Your task to perform on an android device: Google the capital of Mexico Image 0: 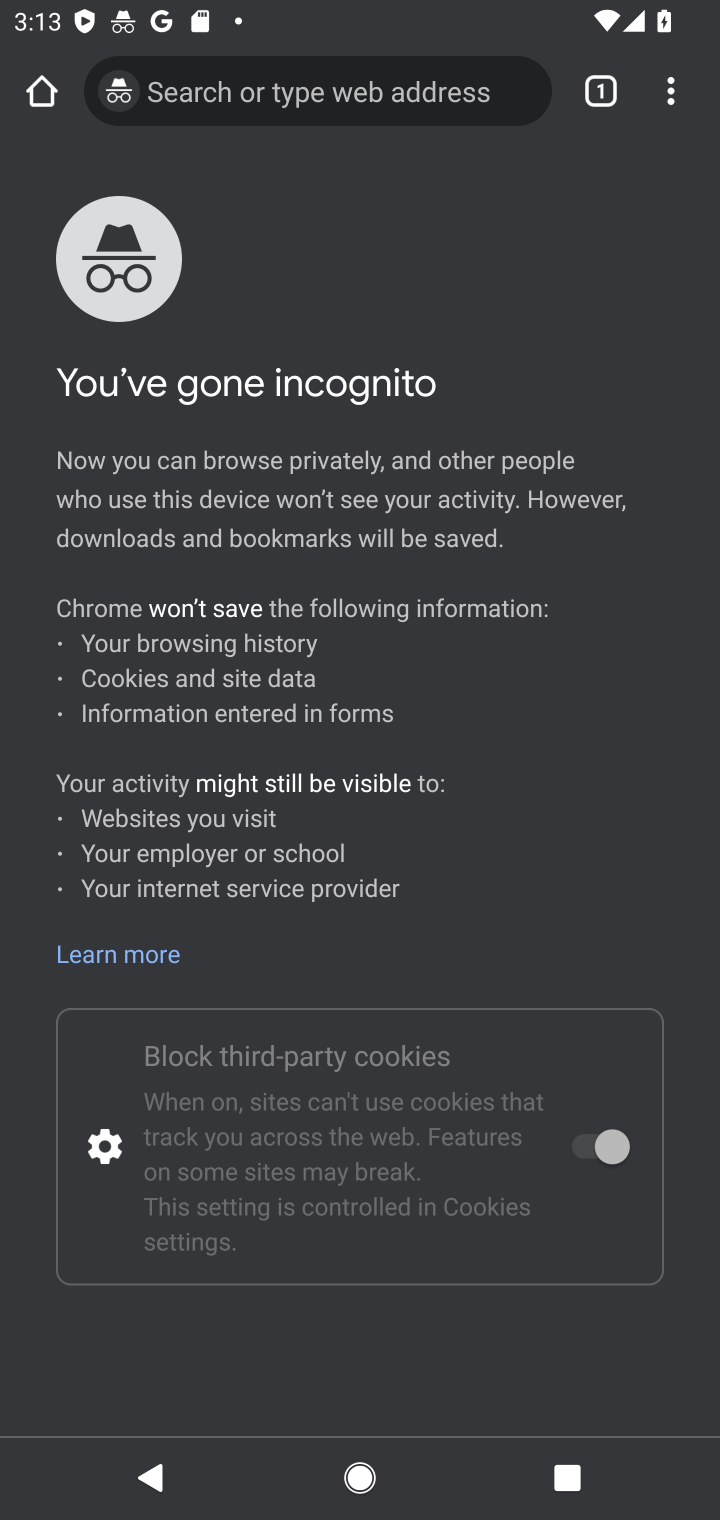
Step 0: press home button
Your task to perform on an android device: Google the capital of Mexico Image 1: 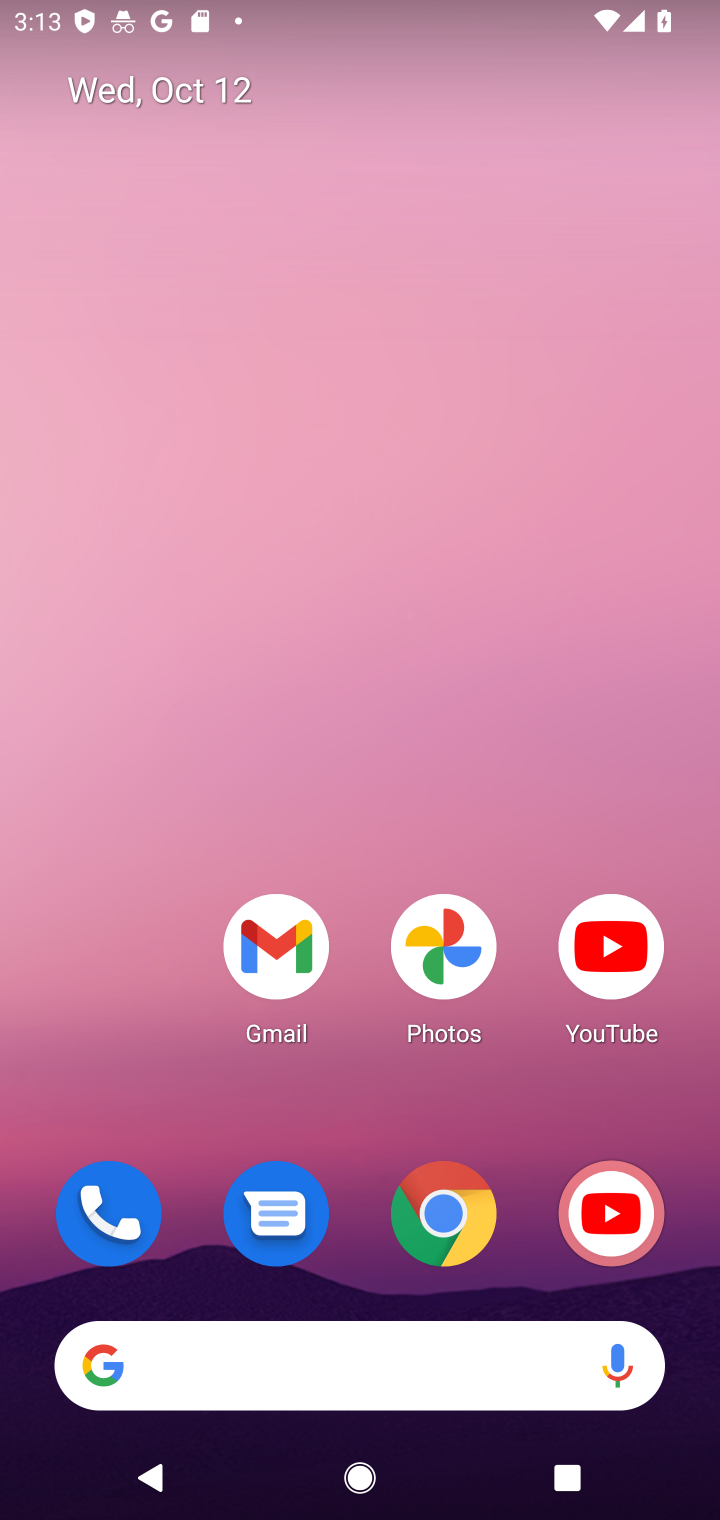
Step 1: click (378, 1360)
Your task to perform on an android device: Google the capital of Mexico Image 2: 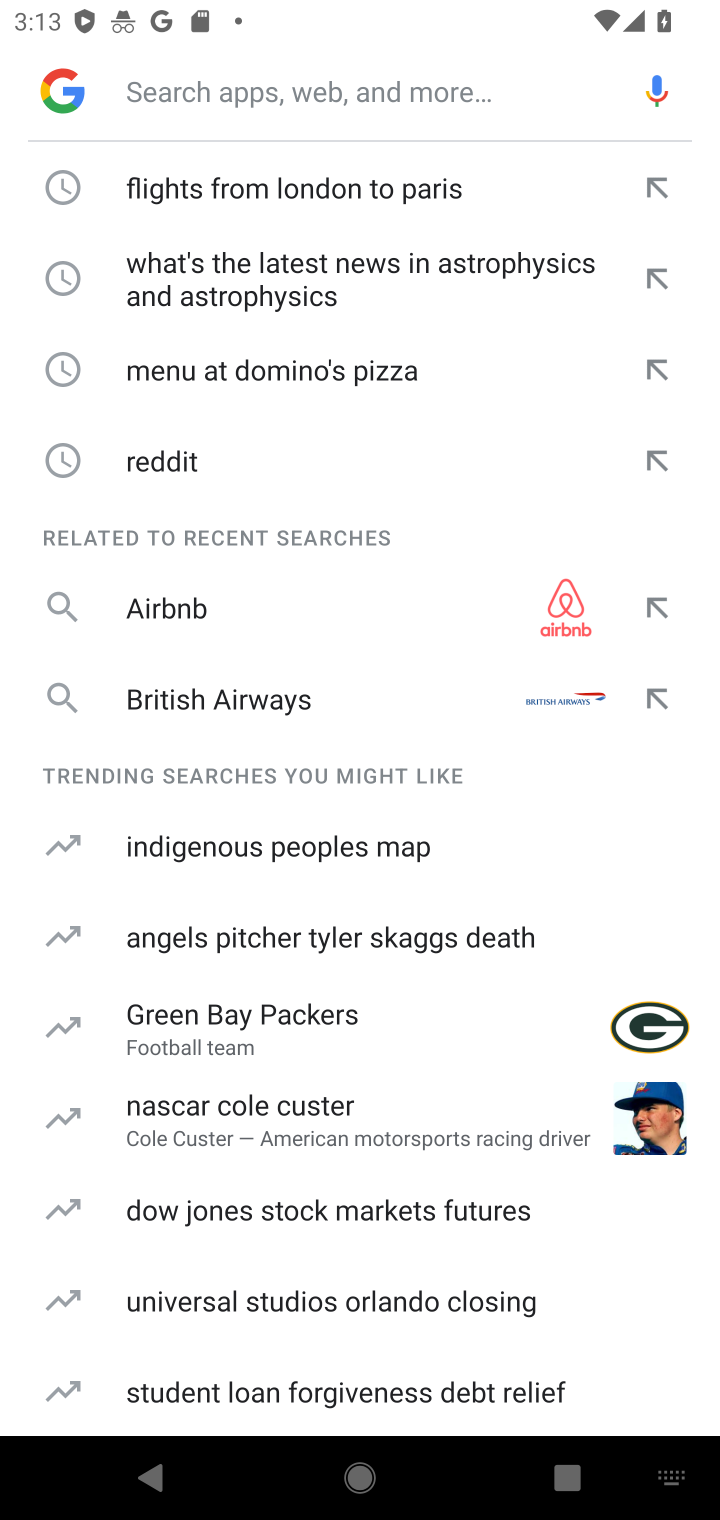
Step 2: click (200, 113)
Your task to perform on an android device: Google the capital of Mexico Image 3: 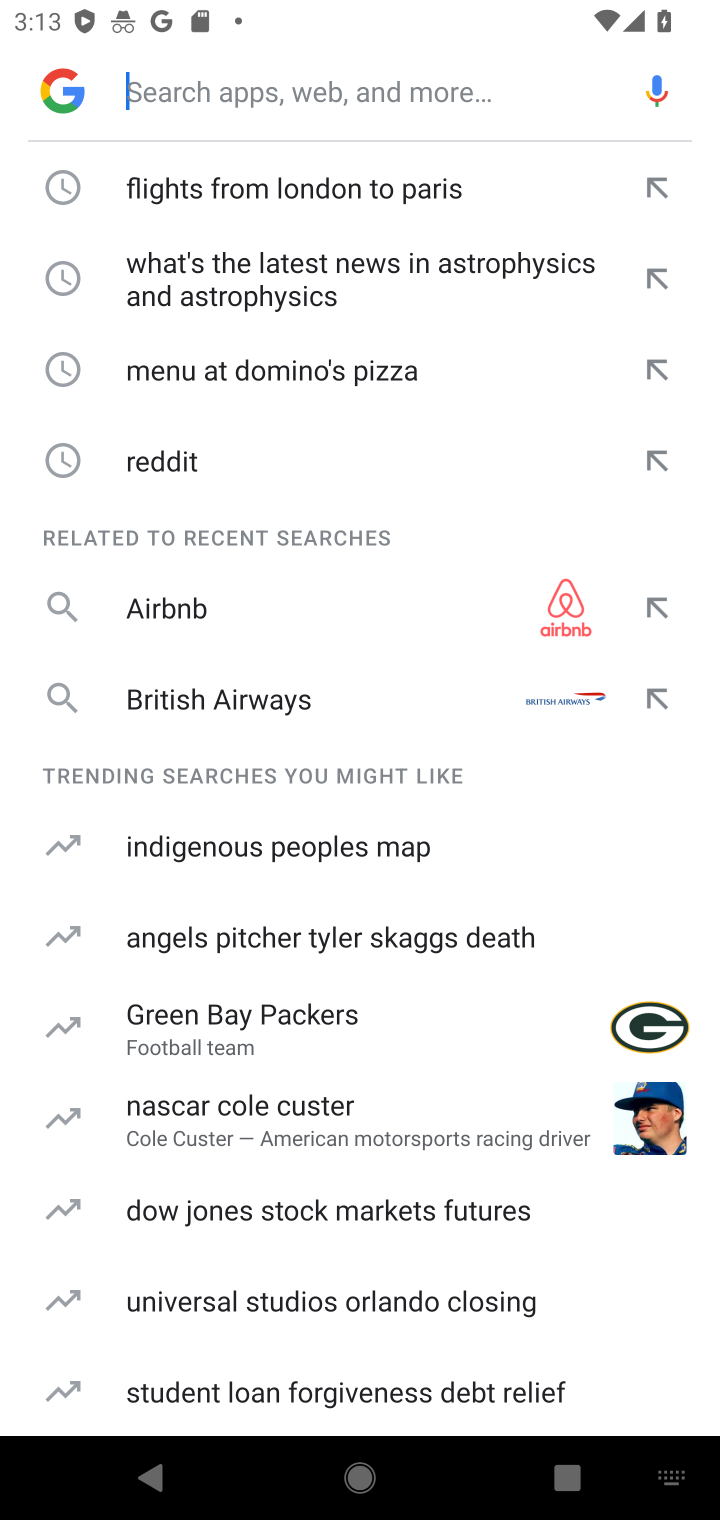
Step 3: type "Google the capital of Mexico"
Your task to perform on an android device: Google the capital of Mexico Image 4: 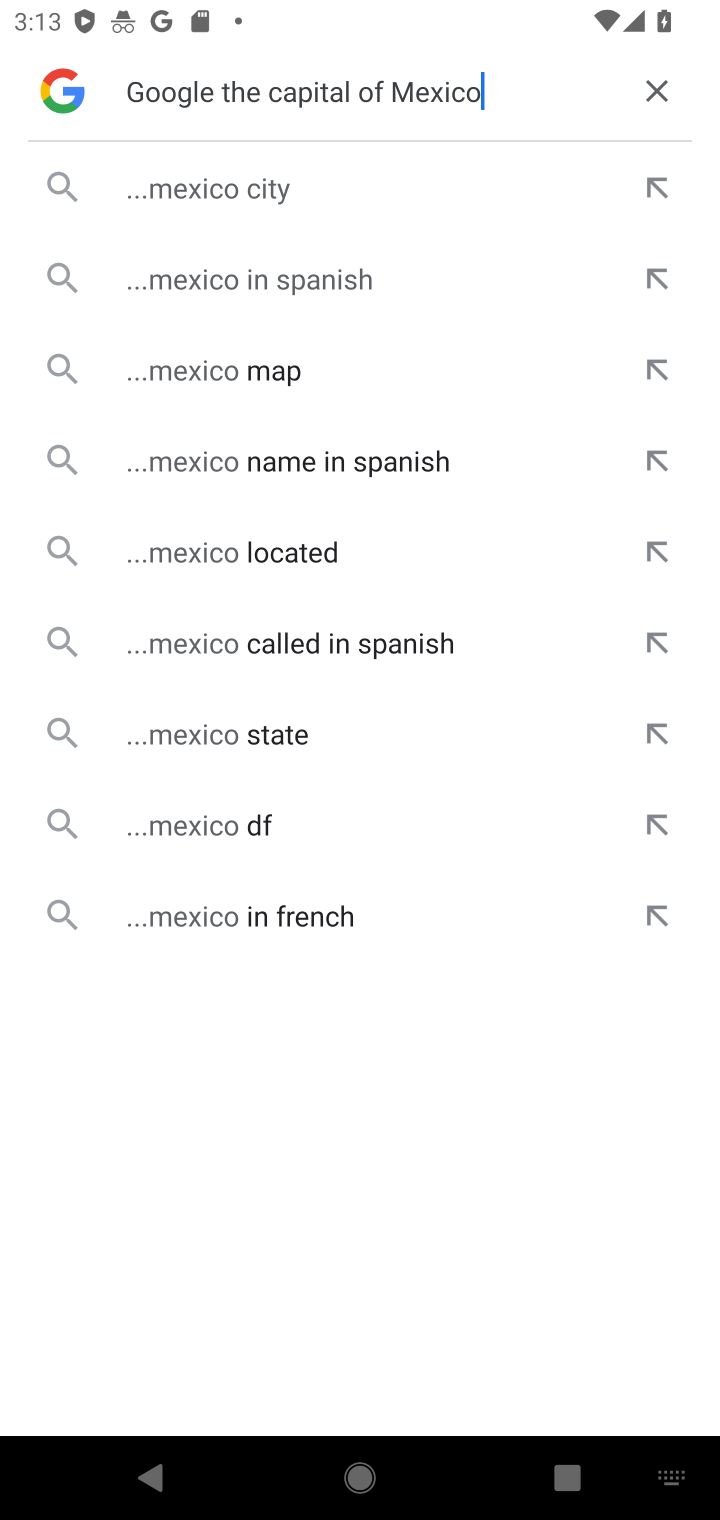
Step 4: click (187, 195)
Your task to perform on an android device: Google the capital of Mexico Image 5: 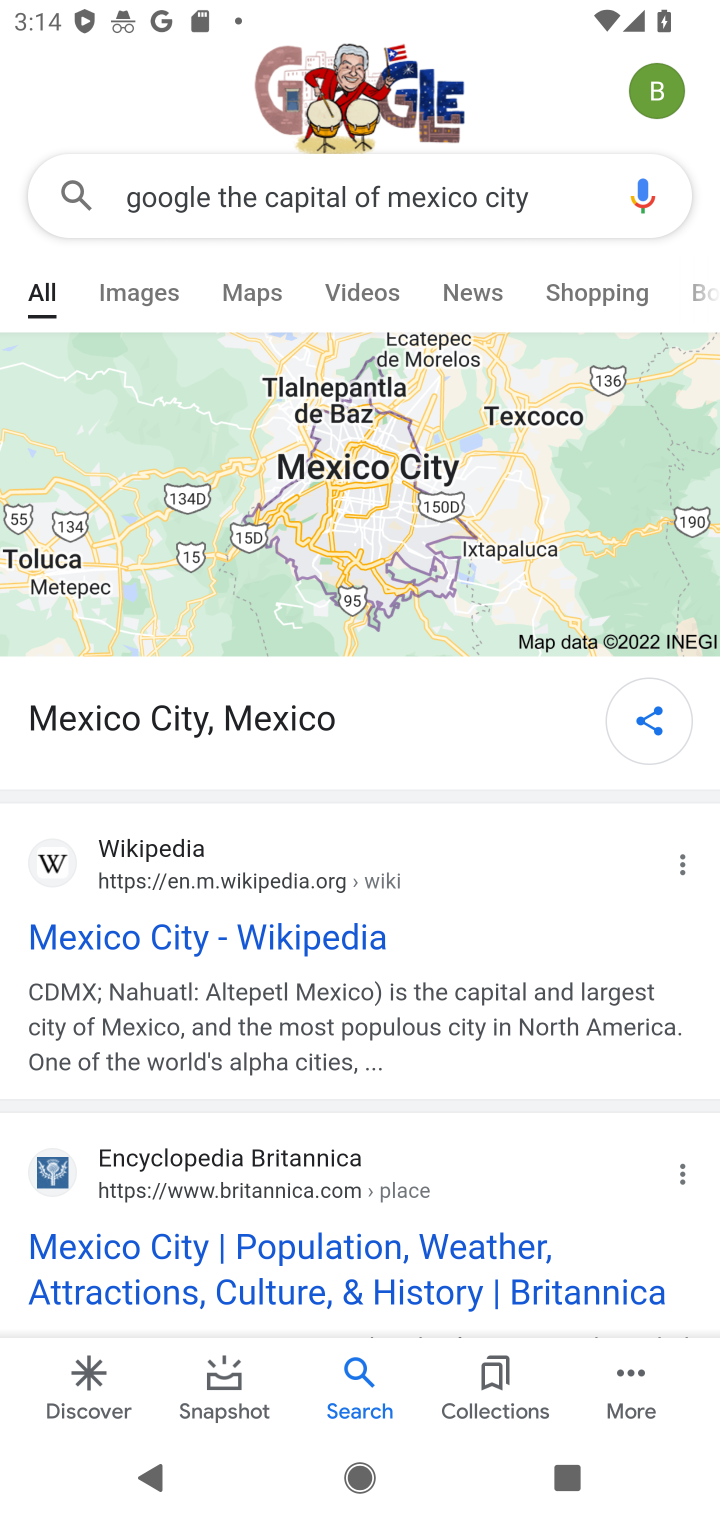
Step 5: task complete